Your task to perform on an android device: empty trash in the gmail app Image 0: 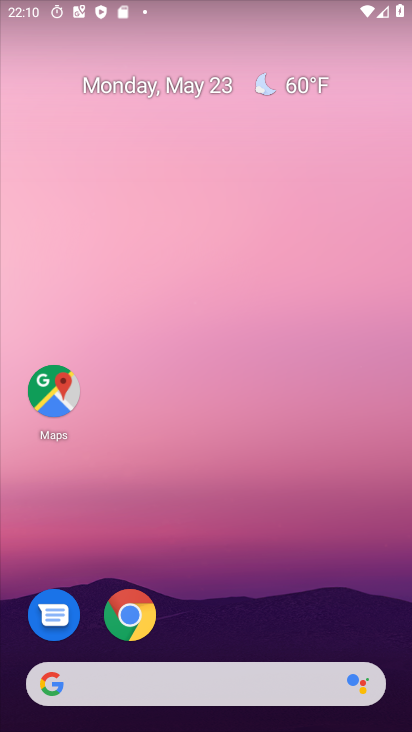
Step 0: drag from (250, 547) to (245, 145)
Your task to perform on an android device: empty trash in the gmail app Image 1: 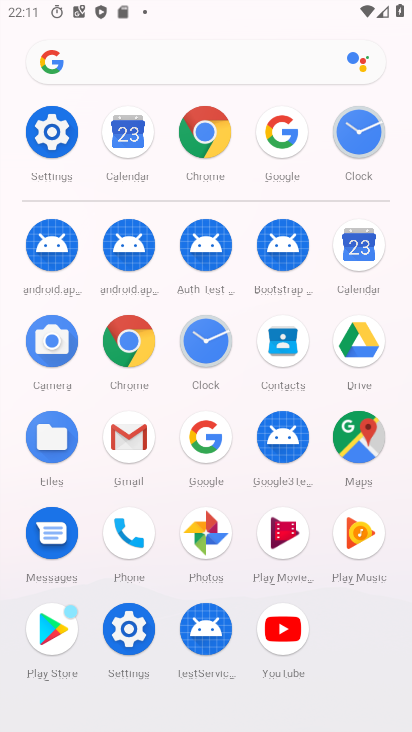
Step 1: click (137, 439)
Your task to perform on an android device: empty trash in the gmail app Image 2: 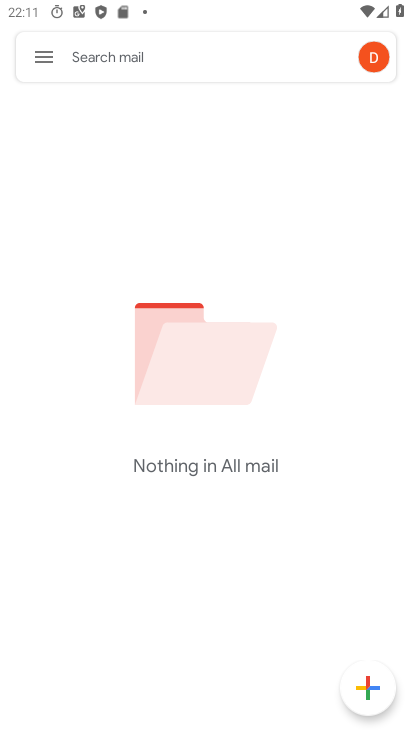
Step 2: click (40, 58)
Your task to perform on an android device: empty trash in the gmail app Image 3: 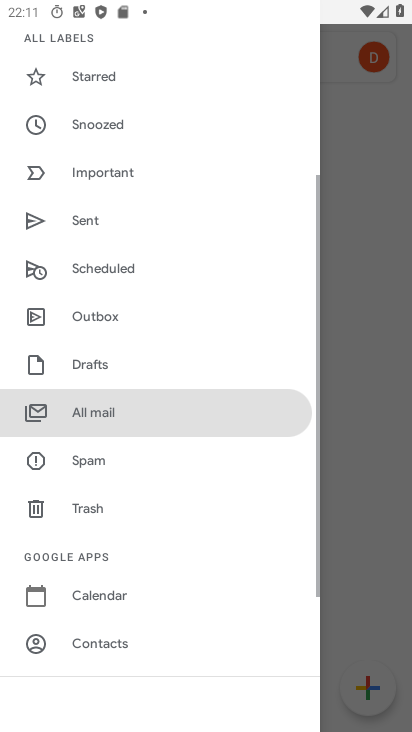
Step 3: click (111, 502)
Your task to perform on an android device: empty trash in the gmail app Image 4: 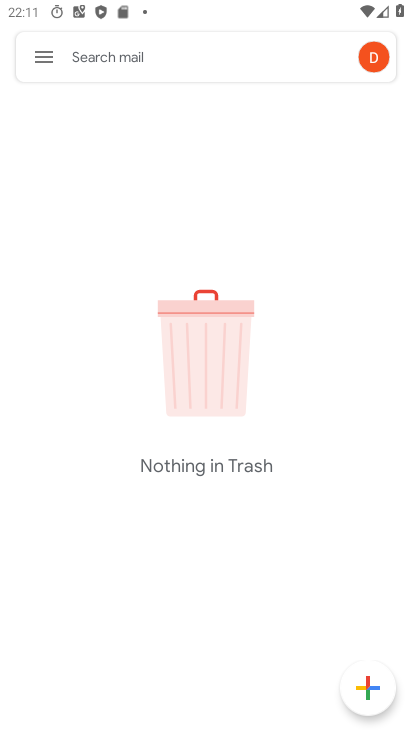
Step 4: task complete